Your task to perform on an android device: toggle wifi Image 0: 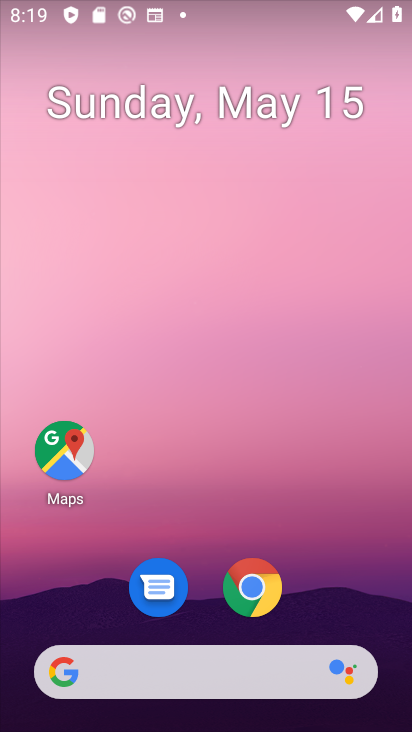
Step 0: drag from (209, 616) to (223, 200)
Your task to perform on an android device: toggle wifi Image 1: 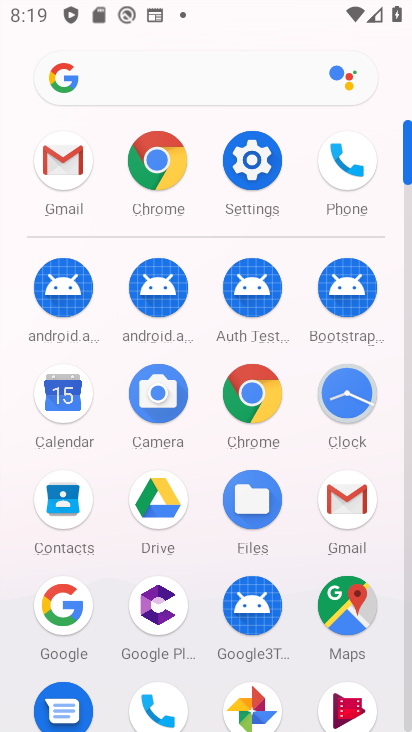
Step 1: click (248, 158)
Your task to perform on an android device: toggle wifi Image 2: 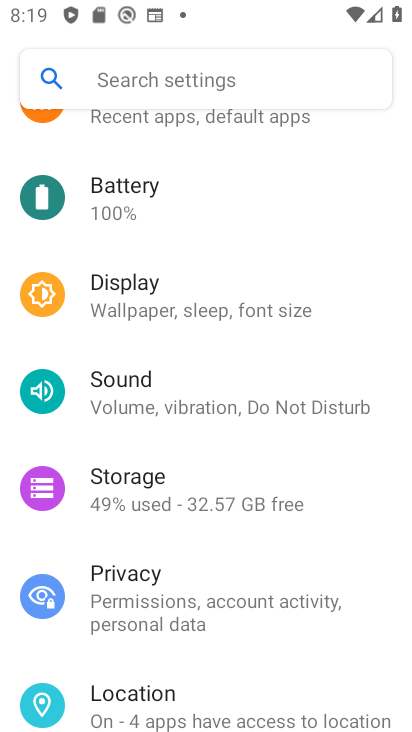
Step 2: drag from (210, 229) to (190, 639)
Your task to perform on an android device: toggle wifi Image 3: 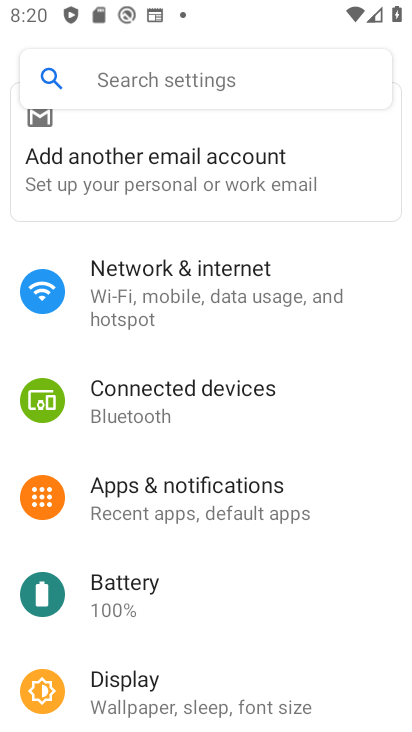
Step 3: click (129, 318)
Your task to perform on an android device: toggle wifi Image 4: 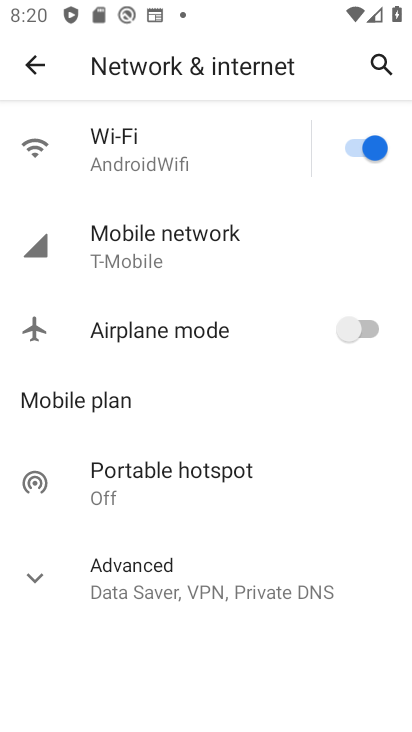
Step 4: click (351, 145)
Your task to perform on an android device: toggle wifi Image 5: 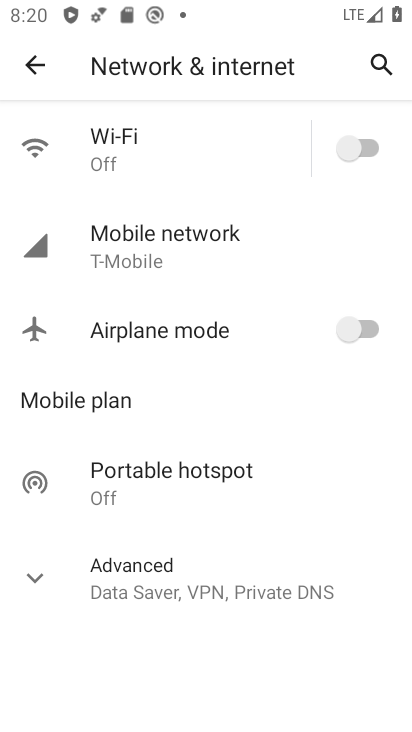
Step 5: task complete